Your task to perform on an android device: Turn off the flashlight Image 0: 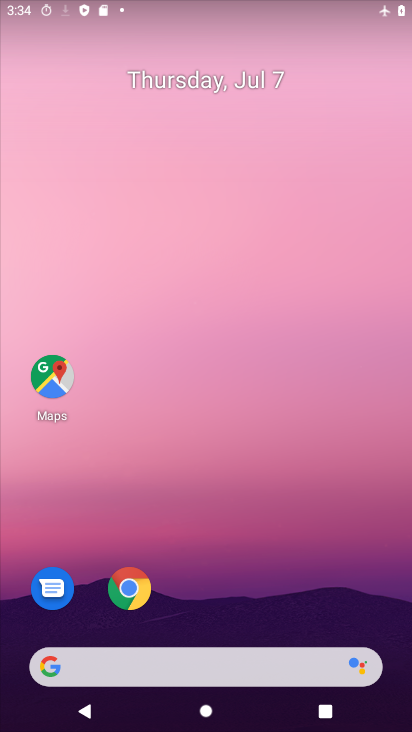
Step 0: drag from (265, 562) to (171, 111)
Your task to perform on an android device: Turn off the flashlight Image 1: 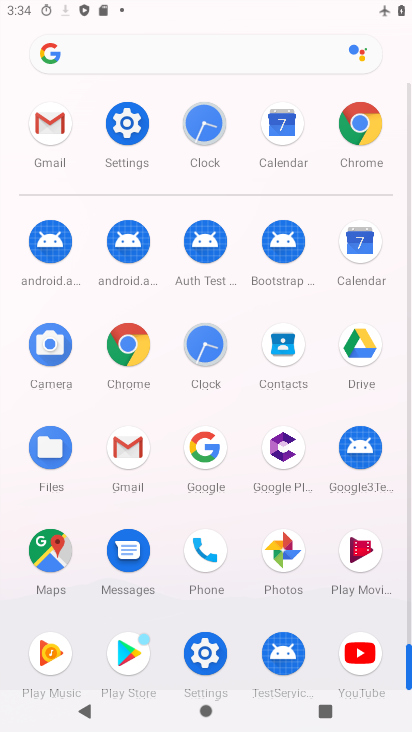
Step 1: task complete